Your task to perform on an android device: check android version Image 0: 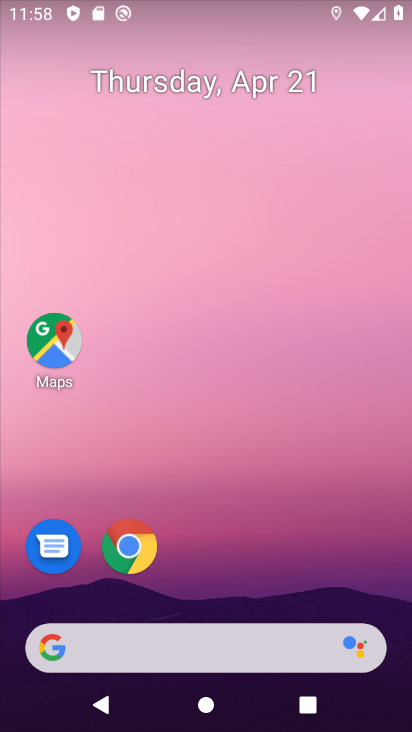
Step 0: drag from (210, 709) to (207, 176)
Your task to perform on an android device: check android version Image 1: 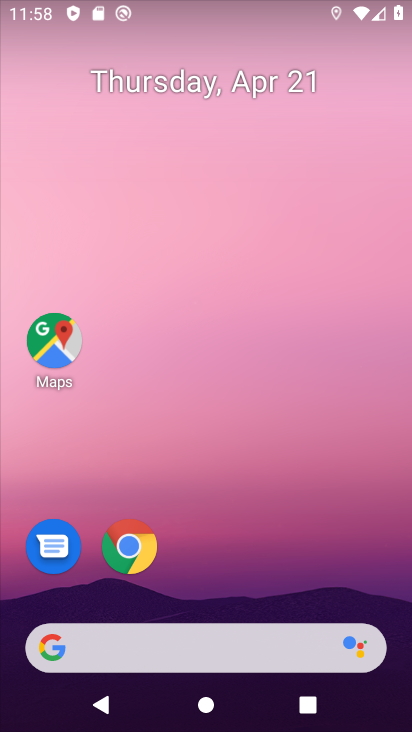
Step 1: drag from (216, 710) to (176, 221)
Your task to perform on an android device: check android version Image 2: 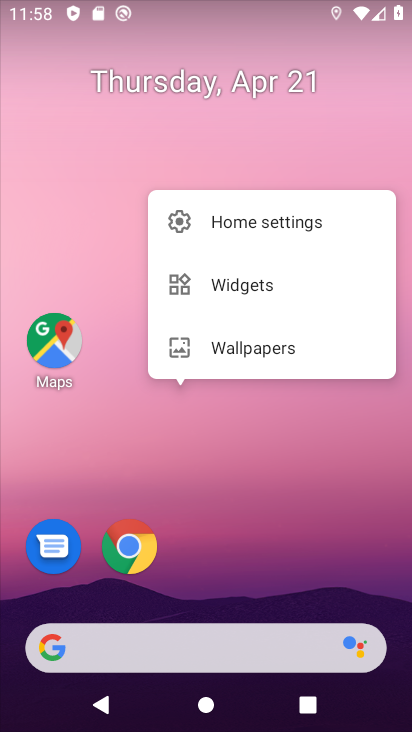
Step 2: click (253, 485)
Your task to perform on an android device: check android version Image 3: 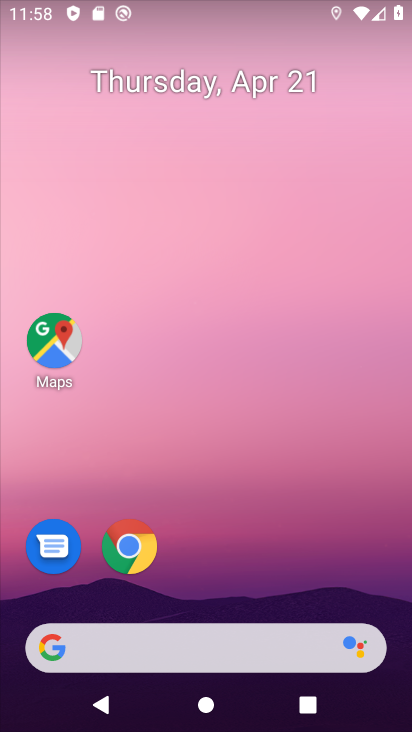
Step 3: drag from (207, 724) to (204, 210)
Your task to perform on an android device: check android version Image 4: 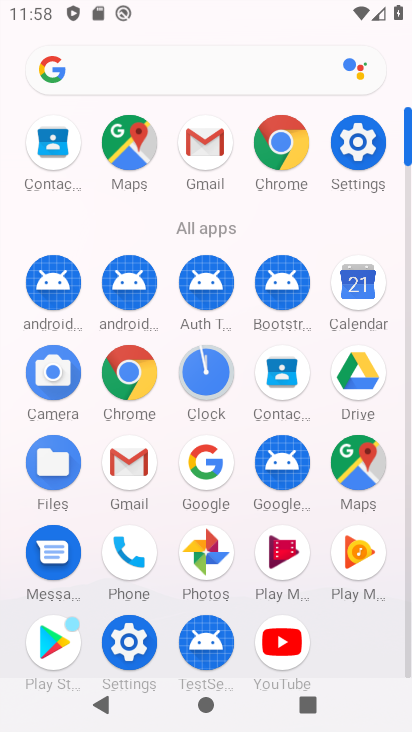
Step 4: click (361, 151)
Your task to perform on an android device: check android version Image 5: 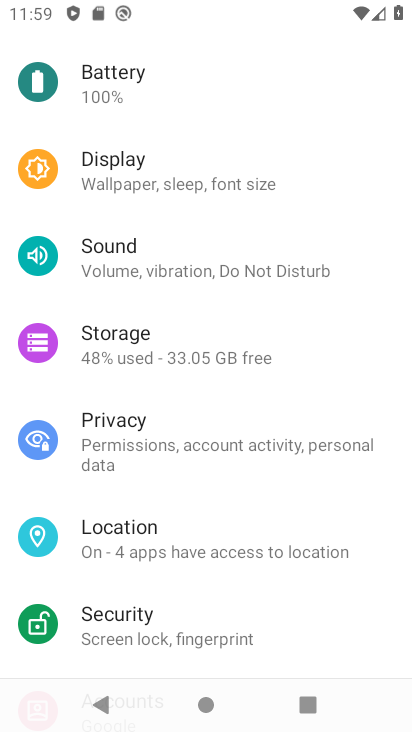
Step 5: drag from (194, 641) to (169, 230)
Your task to perform on an android device: check android version Image 6: 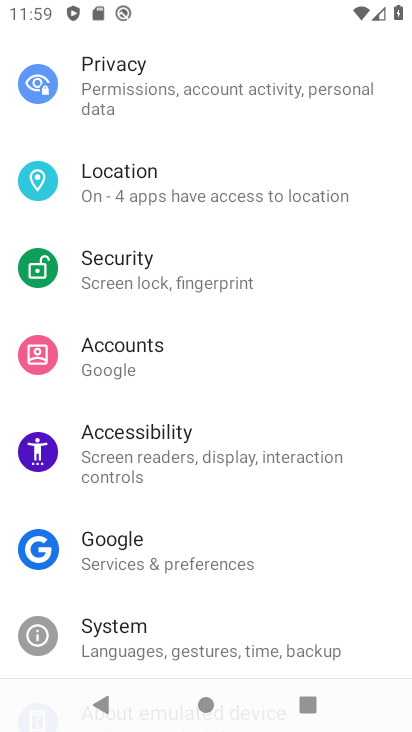
Step 6: drag from (171, 631) to (146, 208)
Your task to perform on an android device: check android version Image 7: 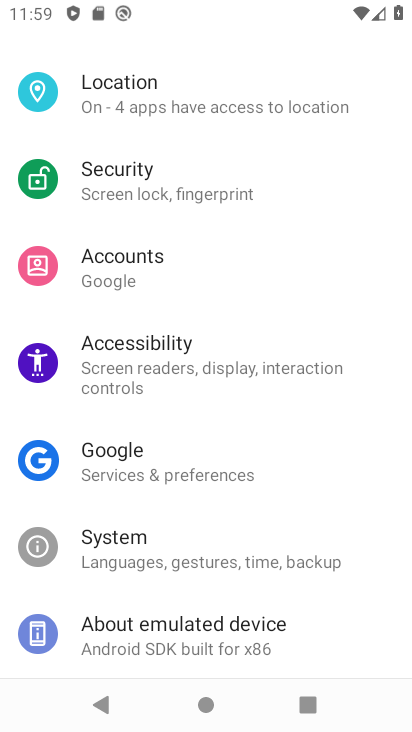
Step 7: click (158, 638)
Your task to perform on an android device: check android version Image 8: 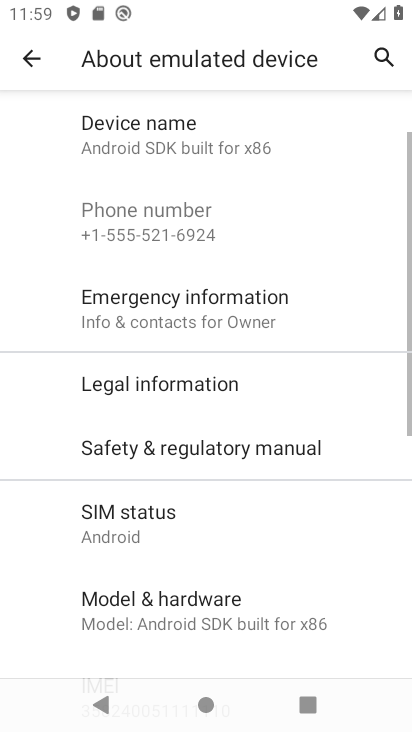
Step 8: drag from (199, 602) to (208, 115)
Your task to perform on an android device: check android version Image 9: 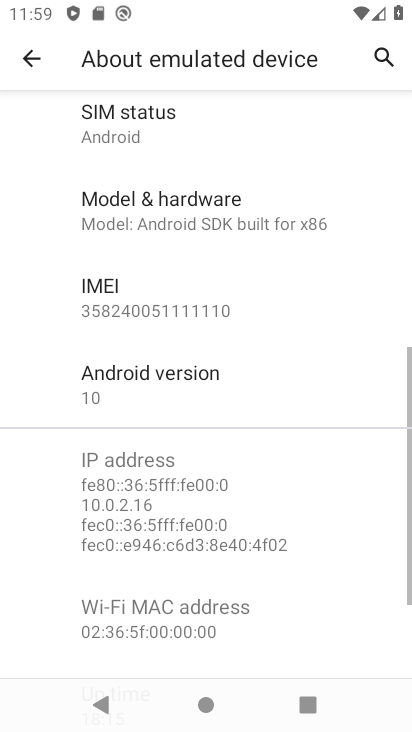
Step 9: click (145, 371)
Your task to perform on an android device: check android version Image 10: 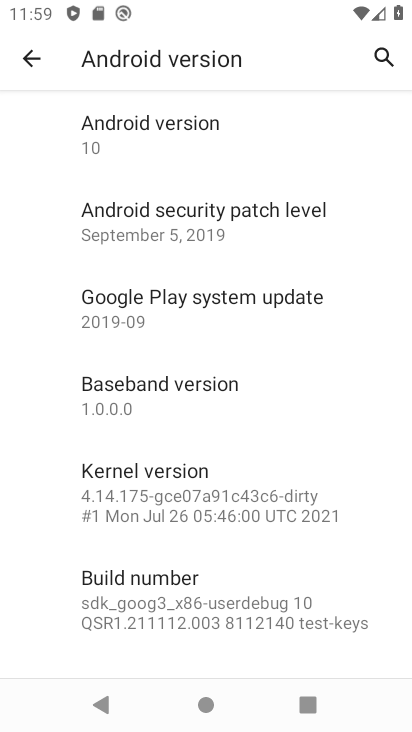
Step 10: task complete